Your task to perform on an android device: Open settings on Google Maps Image 0: 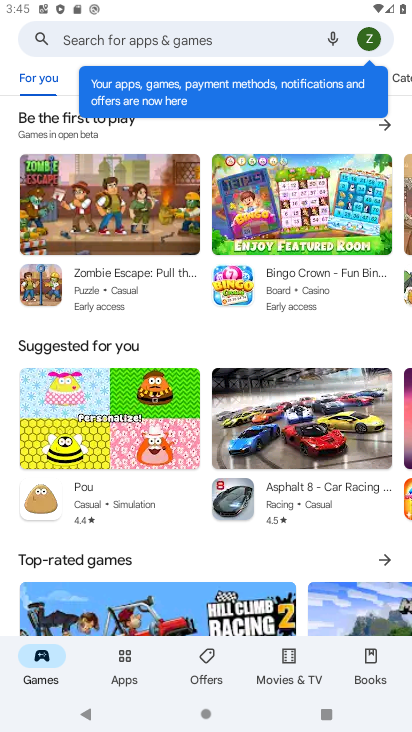
Step 0: press home button
Your task to perform on an android device: Open settings on Google Maps Image 1: 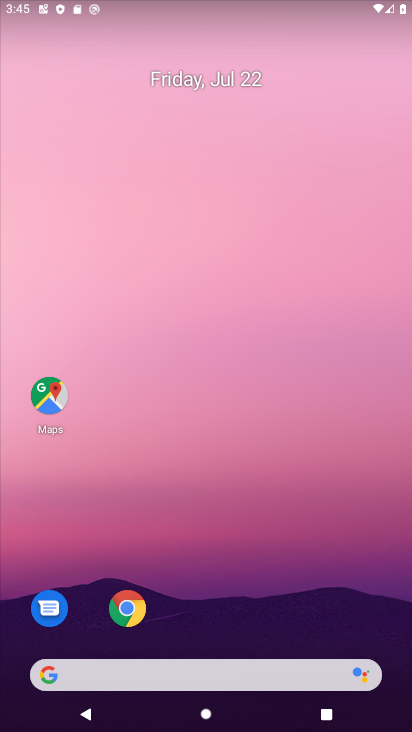
Step 1: drag from (224, 728) to (218, 236)
Your task to perform on an android device: Open settings on Google Maps Image 2: 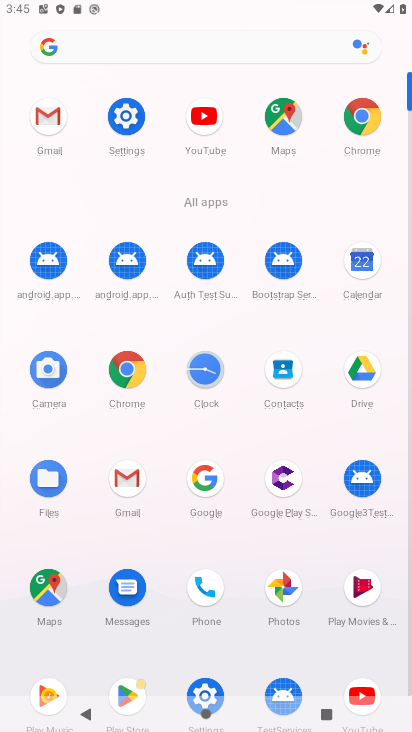
Step 2: click (47, 585)
Your task to perform on an android device: Open settings on Google Maps Image 3: 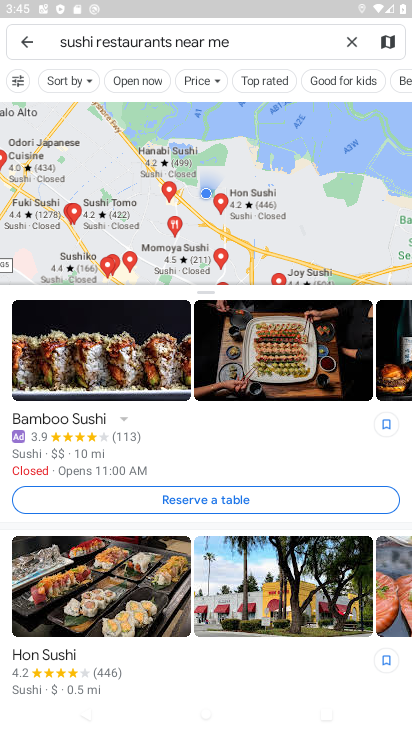
Step 3: click (25, 44)
Your task to perform on an android device: Open settings on Google Maps Image 4: 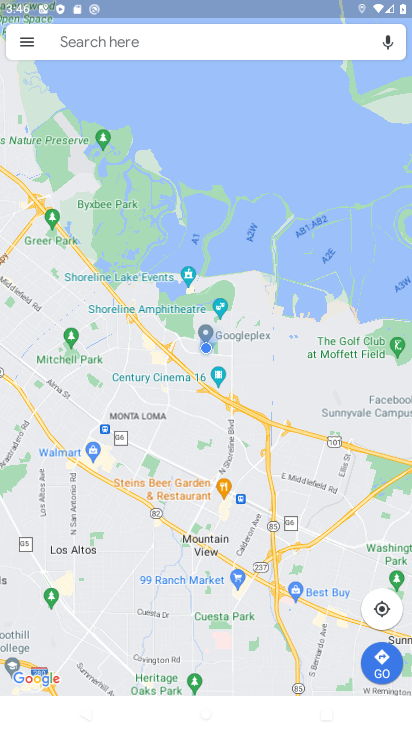
Step 4: click (25, 36)
Your task to perform on an android device: Open settings on Google Maps Image 5: 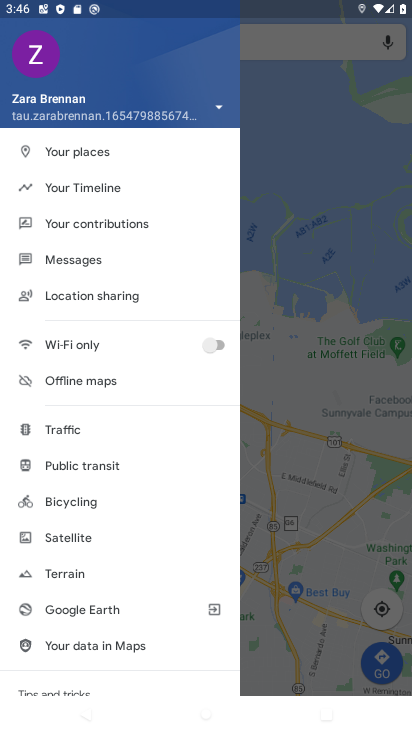
Step 5: drag from (80, 646) to (80, 276)
Your task to perform on an android device: Open settings on Google Maps Image 6: 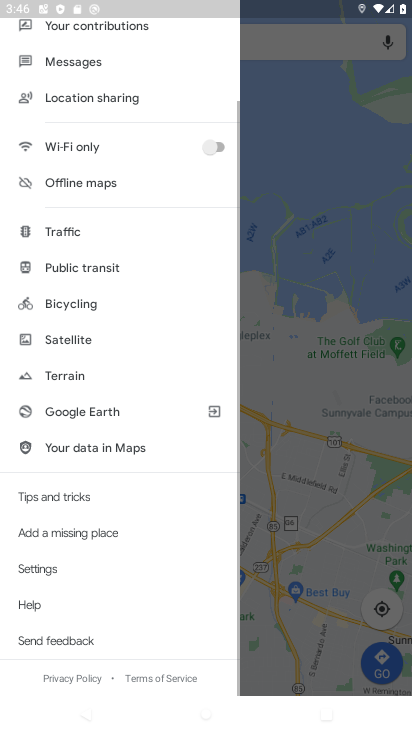
Step 6: click (37, 566)
Your task to perform on an android device: Open settings on Google Maps Image 7: 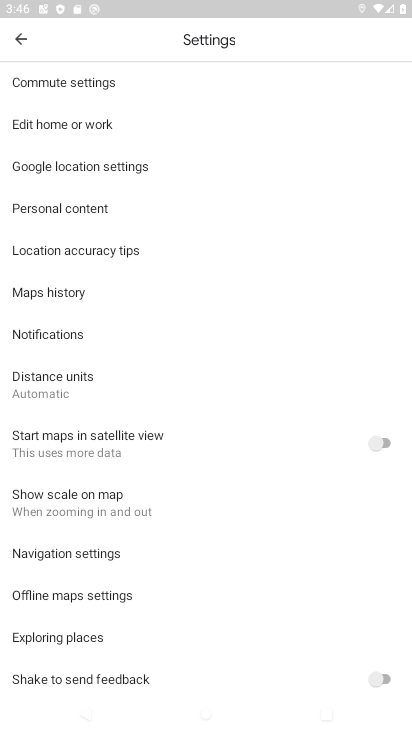
Step 7: task complete